Your task to perform on an android device: Go to Wikipedia Image 0: 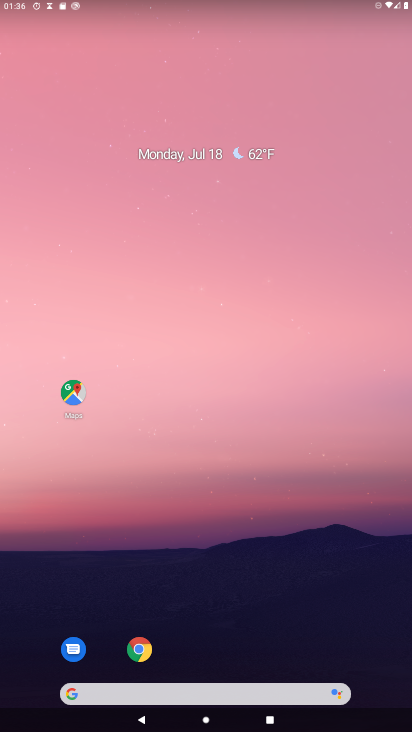
Step 0: click (98, 688)
Your task to perform on an android device: Go to Wikipedia Image 1: 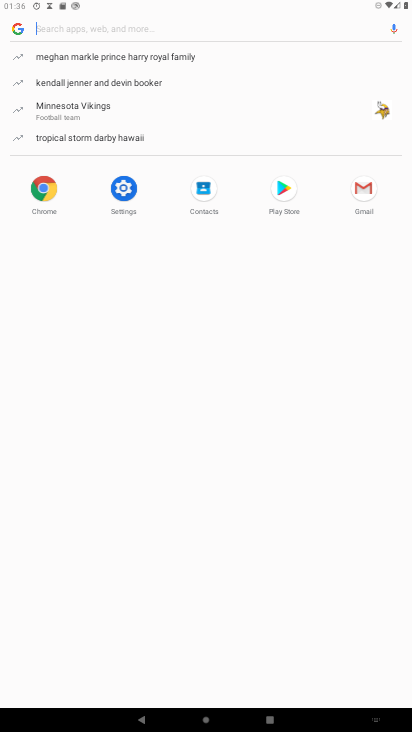
Step 1: type "Wikipedia"
Your task to perform on an android device: Go to Wikipedia Image 2: 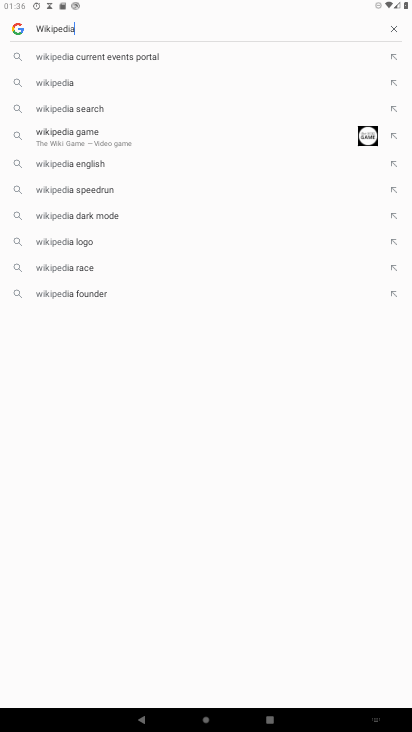
Step 2: type ""
Your task to perform on an android device: Go to Wikipedia Image 3: 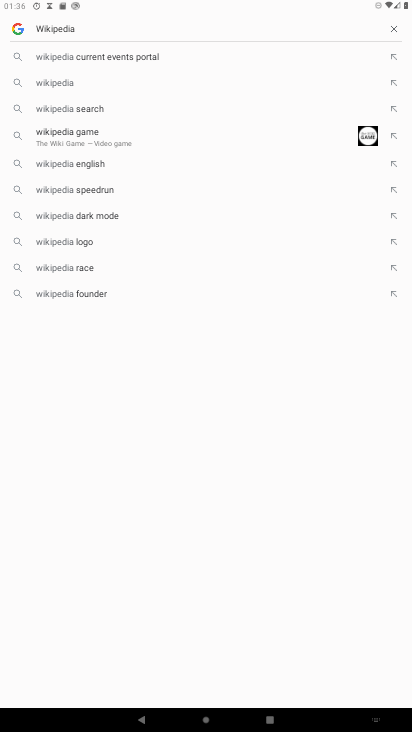
Step 3: click (71, 84)
Your task to perform on an android device: Go to Wikipedia Image 4: 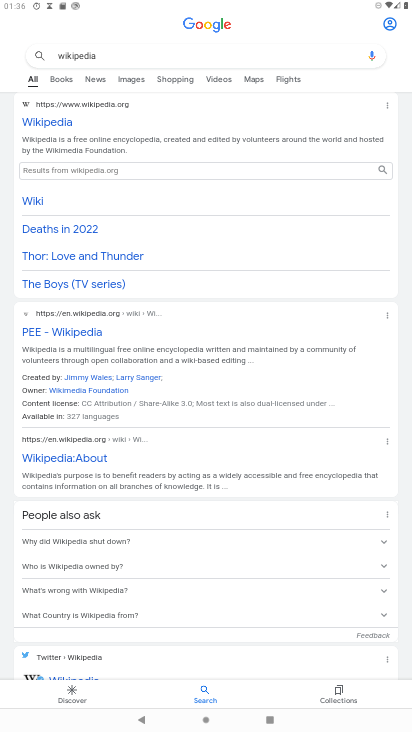
Step 4: task complete